Your task to perform on an android device: Go to notification settings Image 0: 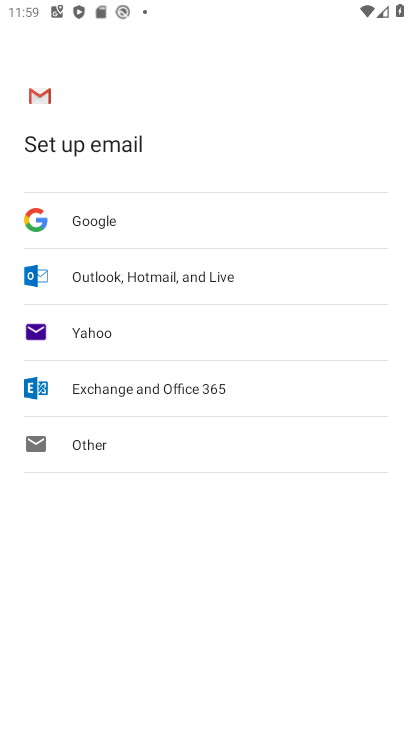
Step 0: press home button
Your task to perform on an android device: Go to notification settings Image 1: 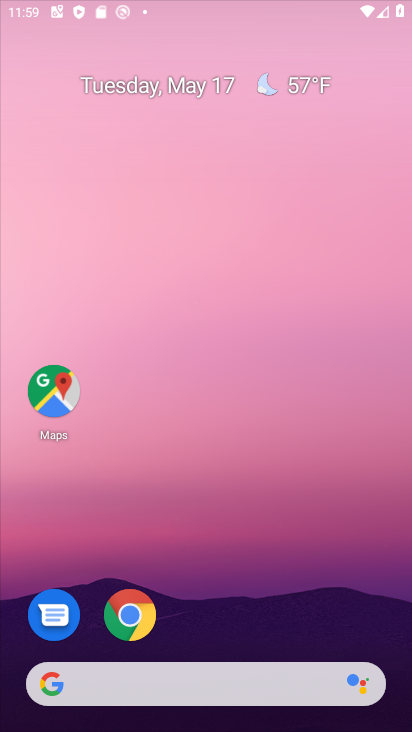
Step 1: drag from (373, 592) to (316, 43)
Your task to perform on an android device: Go to notification settings Image 2: 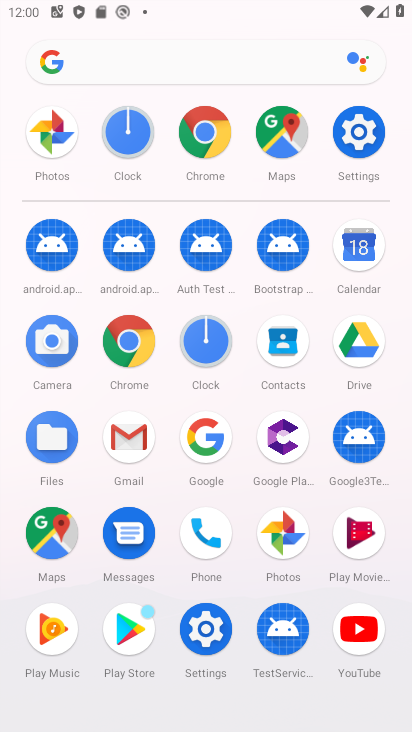
Step 2: click (194, 631)
Your task to perform on an android device: Go to notification settings Image 3: 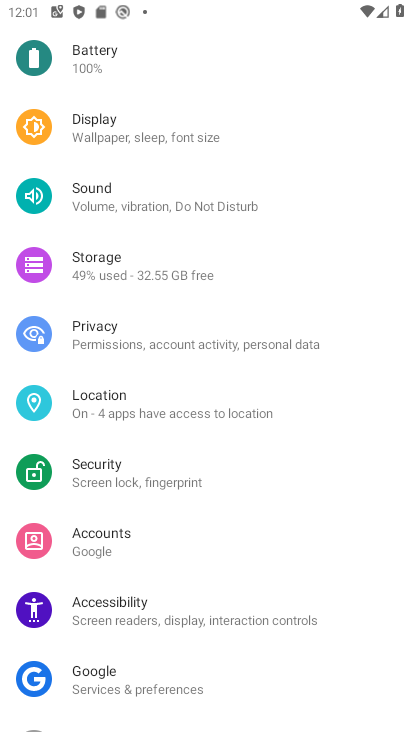
Step 3: drag from (271, 418) to (230, 688)
Your task to perform on an android device: Go to notification settings Image 4: 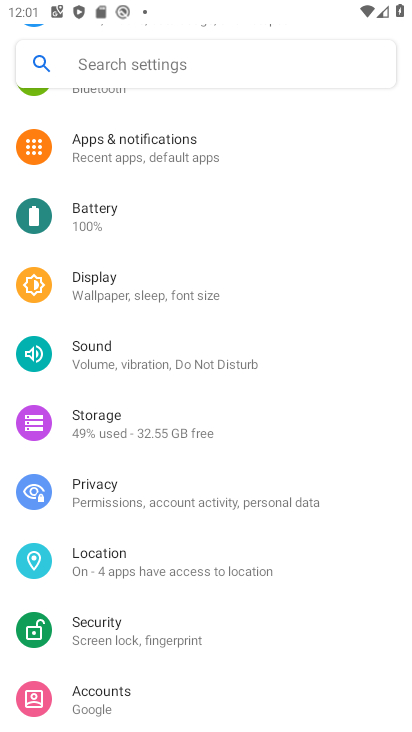
Step 4: click (247, 158)
Your task to perform on an android device: Go to notification settings Image 5: 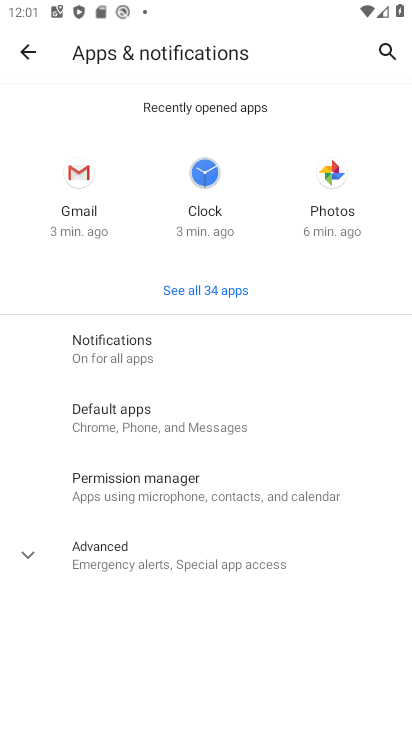
Step 5: click (185, 335)
Your task to perform on an android device: Go to notification settings Image 6: 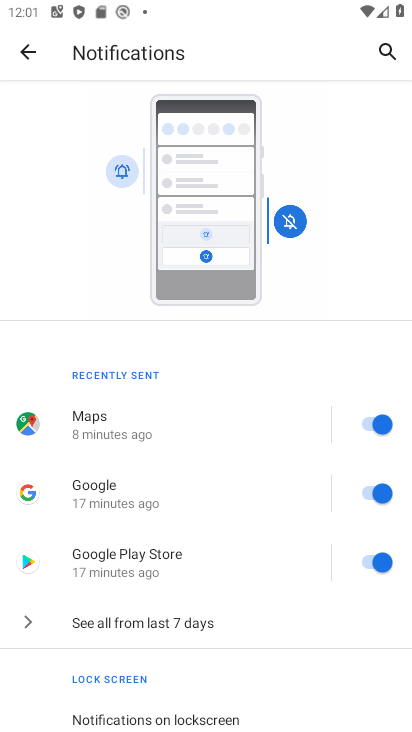
Step 6: task complete